Your task to perform on an android device: Toggle the flashlight Image 0: 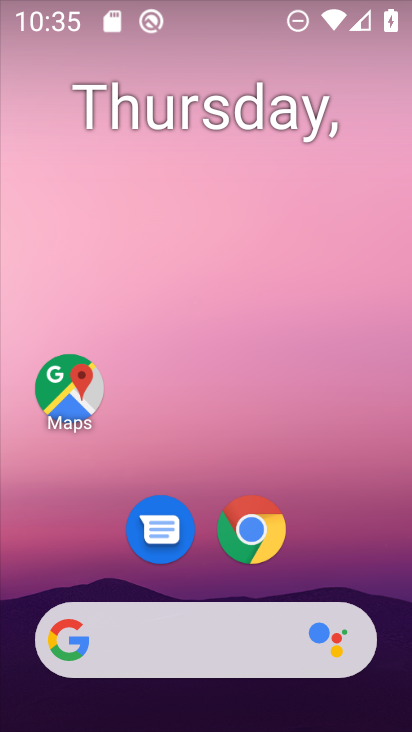
Step 0: drag from (203, 21) to (341, 707)
Your task to perform on an android device: Toggle the flashlight Image 1: 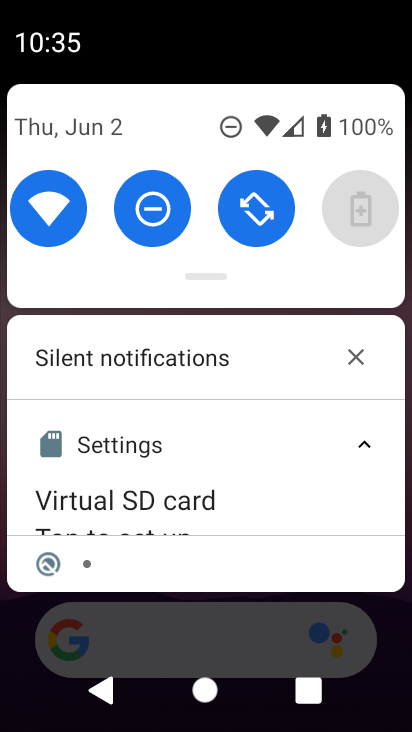
Step 1: task complete